Your task to perform on an android device: turn notification dots on Image 0: 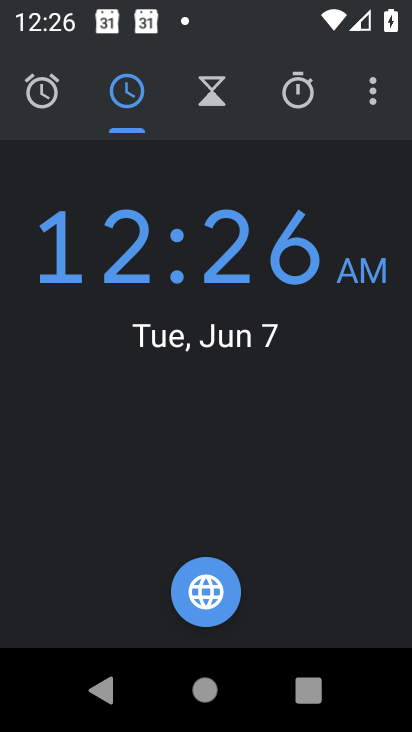
Step 0: press home button
Your task to perform on an android device: turn notification dots on Image 1: 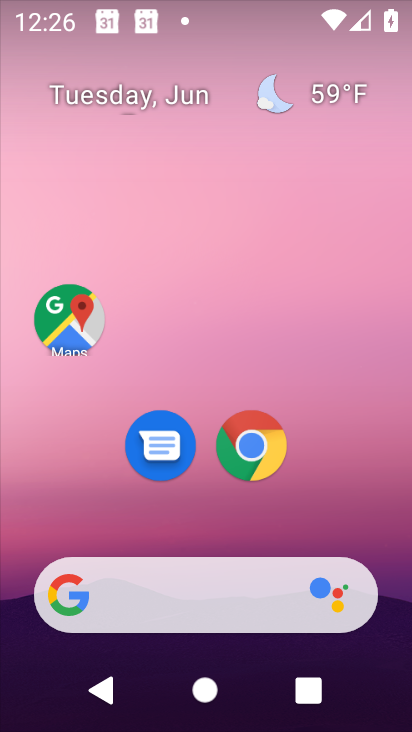
Step 1: drag from (220, 529) to (245, 42)
Your task to perform on an android device: turn notification dots on Image 2: 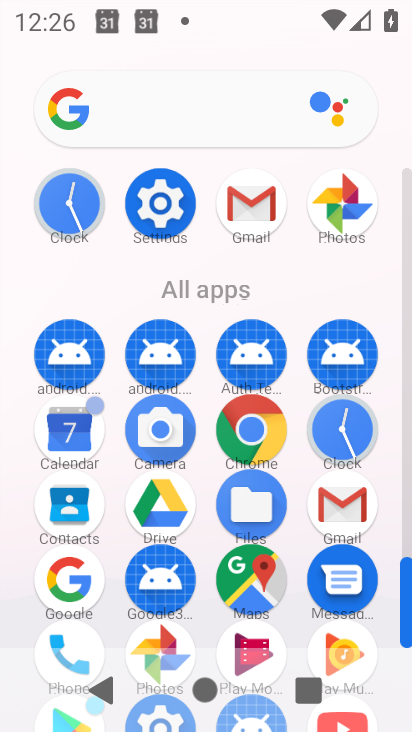
Step 2: click (163, 166)
Your task to perform on an android device: turn notification dots on Image 3: 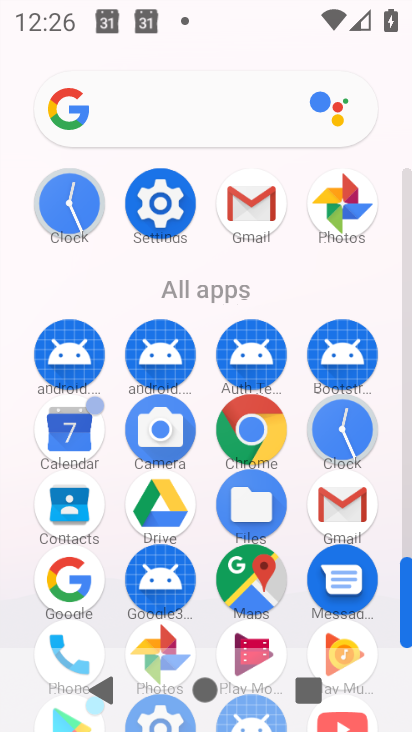
Step 3: click (142, 211)
Your task to perform on an android device: turn notification dots on Image 4: 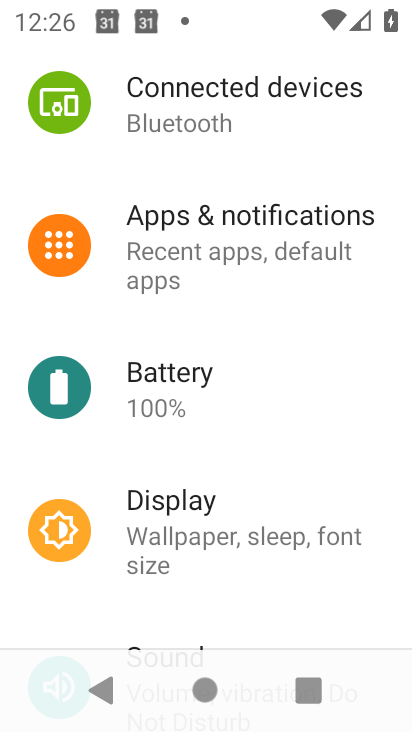
Step 4: click (239, 247)
Your task to perform on an android device: turn notification dots on Image 5: 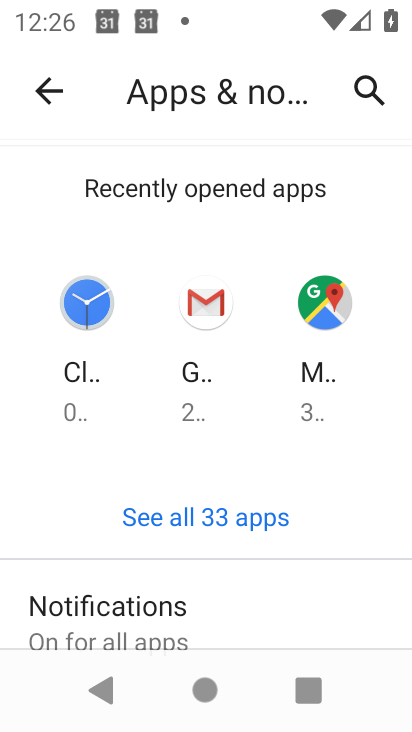
Step 5: click (79, 634)
Your task to perform on an android device: turn notification dots on Image 6: 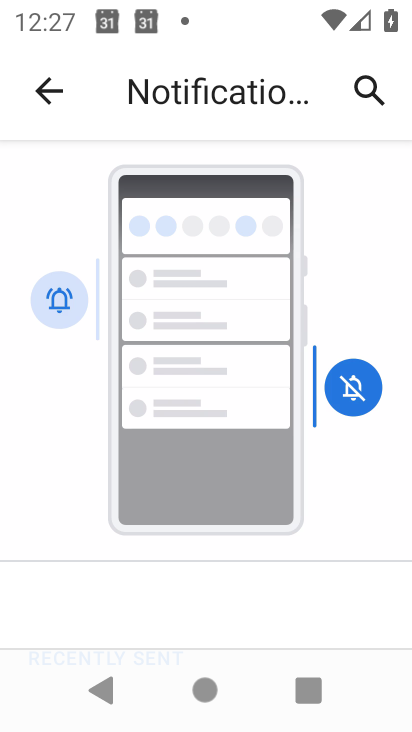
Step 6: drag from (167, 627) to (380, 0)
Your task to perform on an android device: turn notification dots on Image 7: 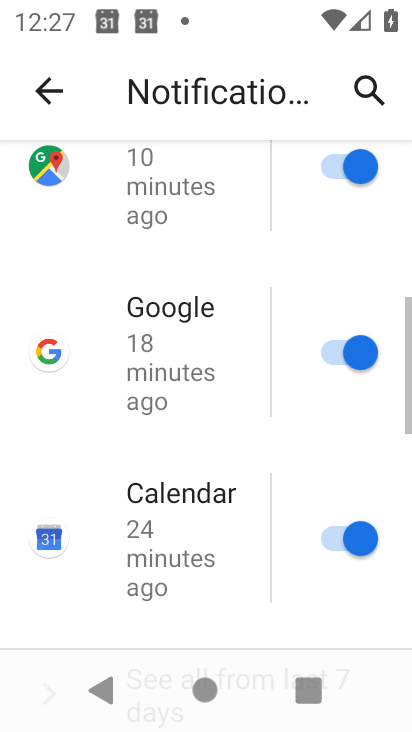
Step 7: drag from (115, 606) to (131, 49)
Your task to perform on an android device: turn notification dots on Image 8: 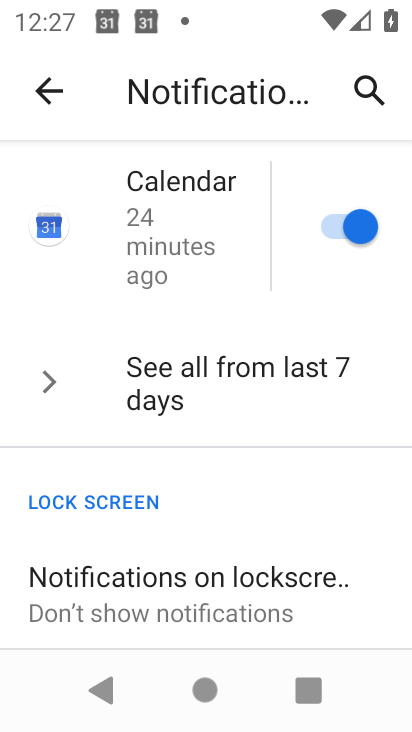
Step 8: drag from (165, 576) to (115, 132)
Your task to perform on an android device: turn notification dots on Image 9: 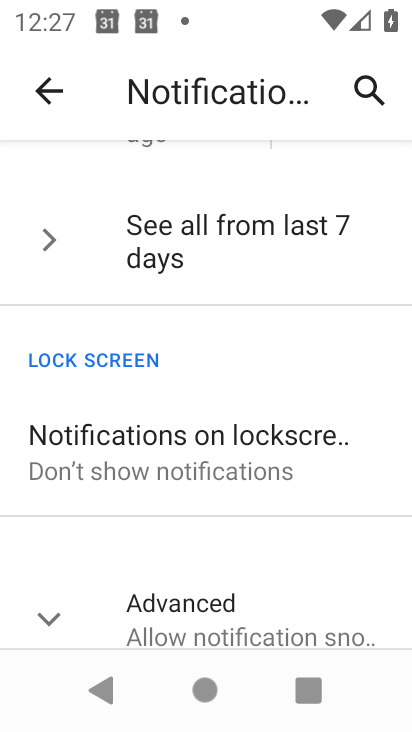
Step 9: click (94, 604)
Your task to perform on an android device: turn notification dots on Image 10: 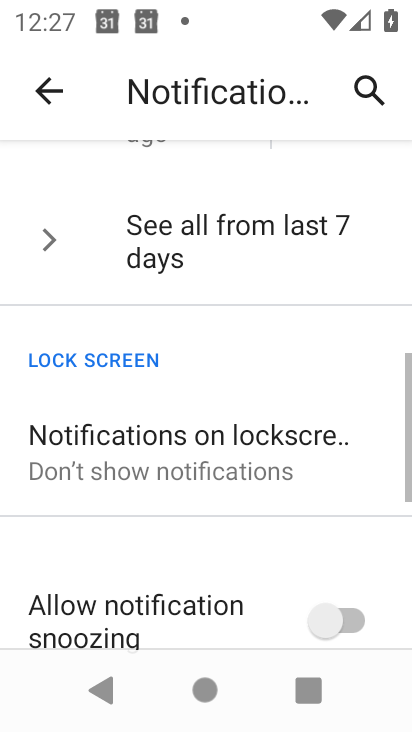
Step 10: task complete